Your task to perform on an android device: open app "Adobe Express: Graphic Design" (install if not already installed), go to login, and select forgot password Image 0: 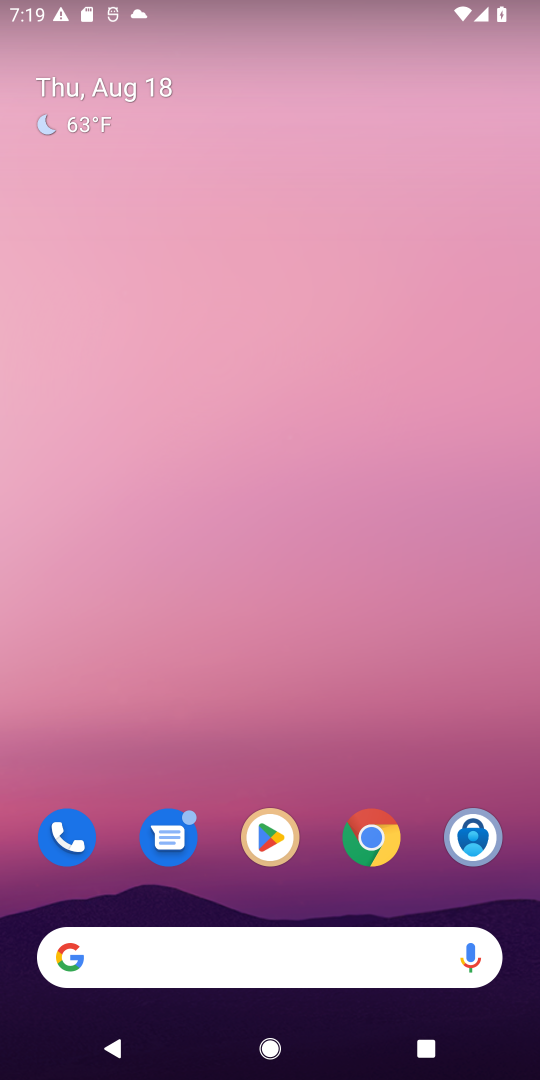
Step 0: drag from (275, 881) to (469, 12)
Your task to perform on an android device: open app "Adobe Express: Graphic Design" (install if not already installed), go to login, and select forgot password Image 1: 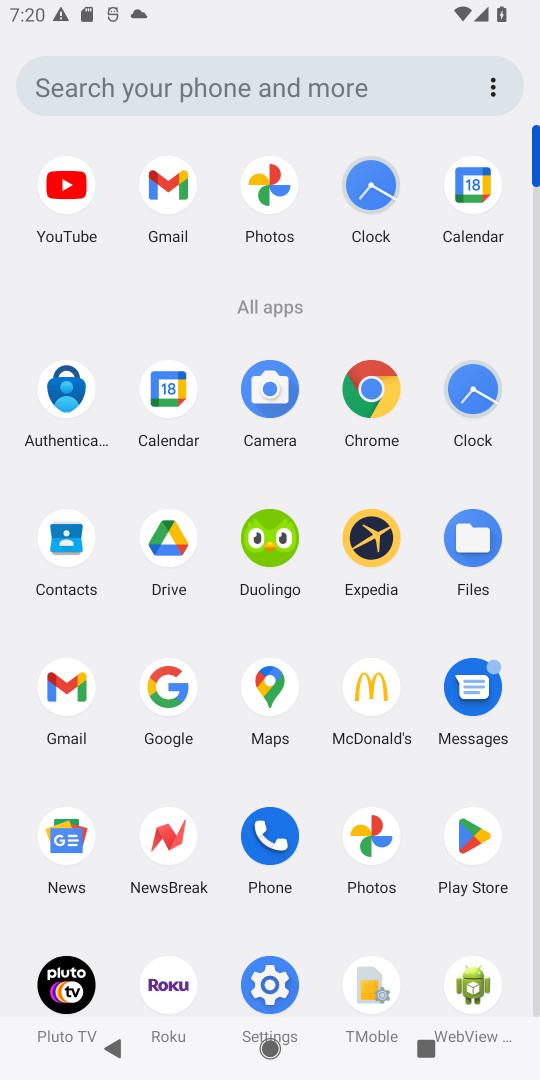
Step 1: click (459, 841)
Your task to perform on an android device: open app "Adobe Express: Graphic Design" (install if not already installed), go to login, and select forgot password Image 2: 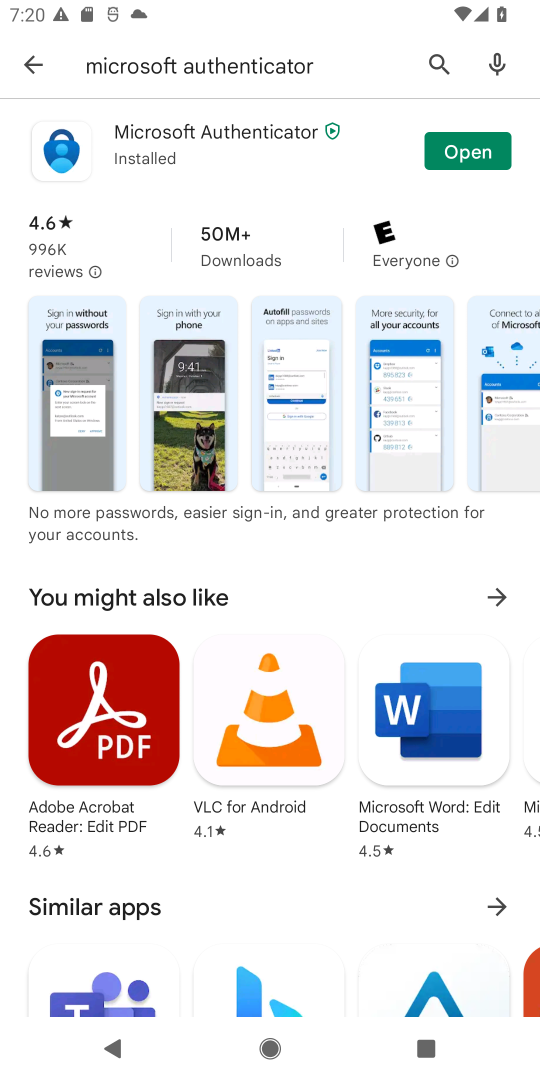
Step 2: click (253, 67)
Your task to perform on an android device: open app "Adobe Express: Graphic Design" (install if not already installed), go to login, and select forgot password Image 3: 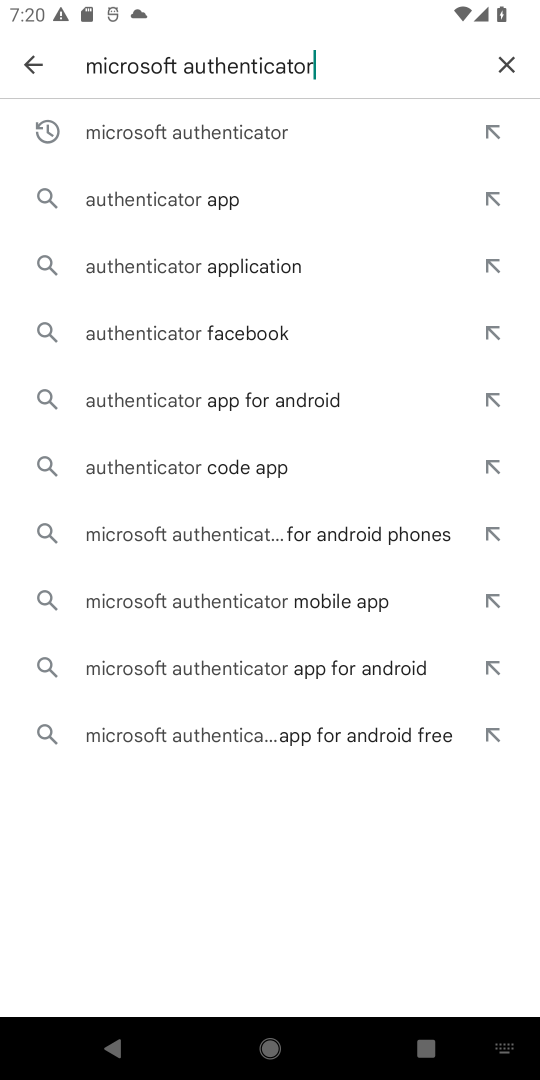
Step 3: click (505, 63)
Your task to perform on an android device: open app "Adobe Express: Graphic Design" (install if not already installed), go to login, and select forgot password Image 4: 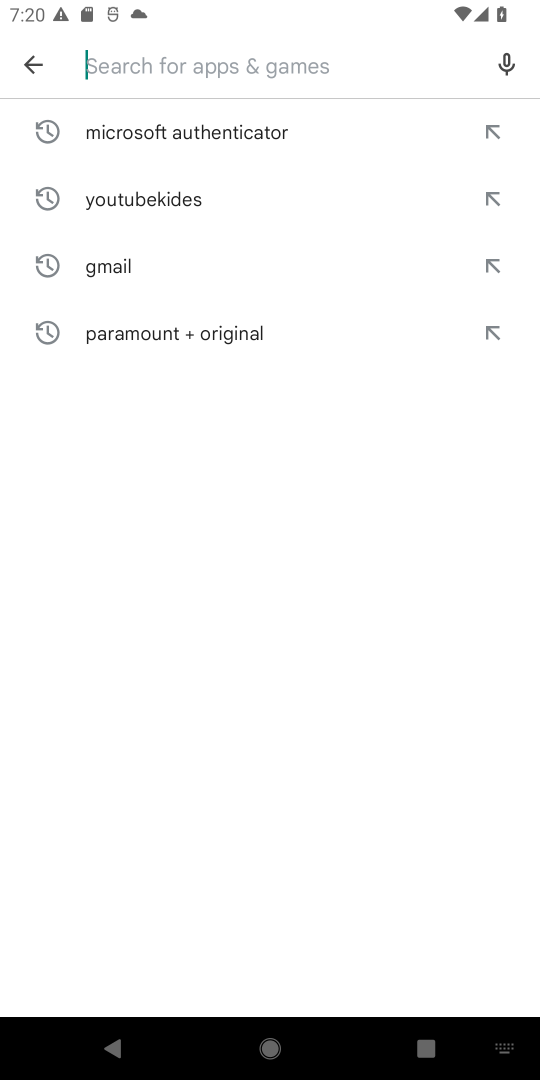
Step 4: type "Adobe Expresss"
Your task to perform on an android device: open app "Adobe Express: Graphic Design" (install if not already installed), go to login, and select forgot password Image 5: 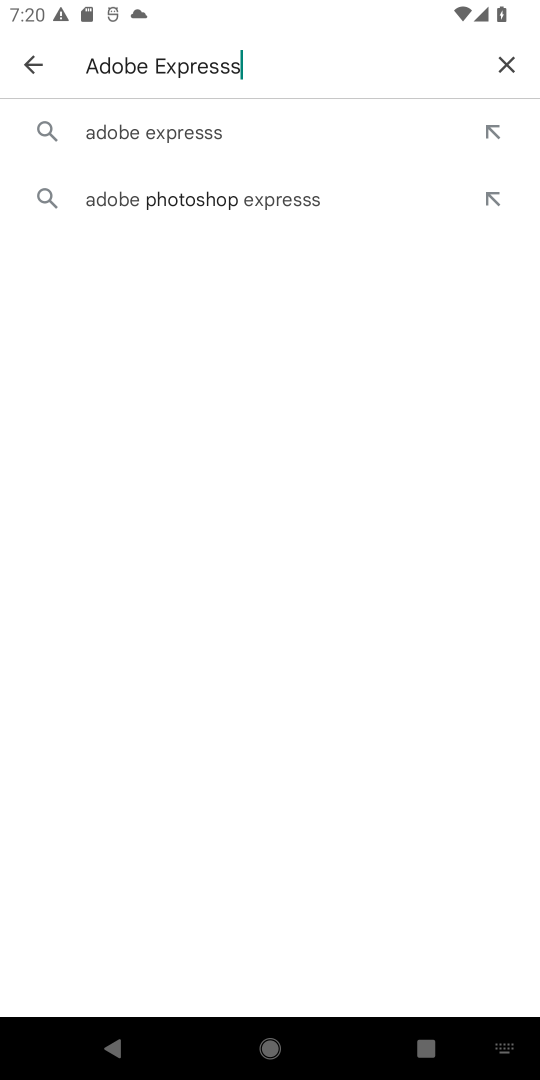
Step 5: click (198, 128)
Your task to perform on an android device: open app "Adobe Express: Graphic Design" (install if not already installed), go to login, and select forgot password Image 6: 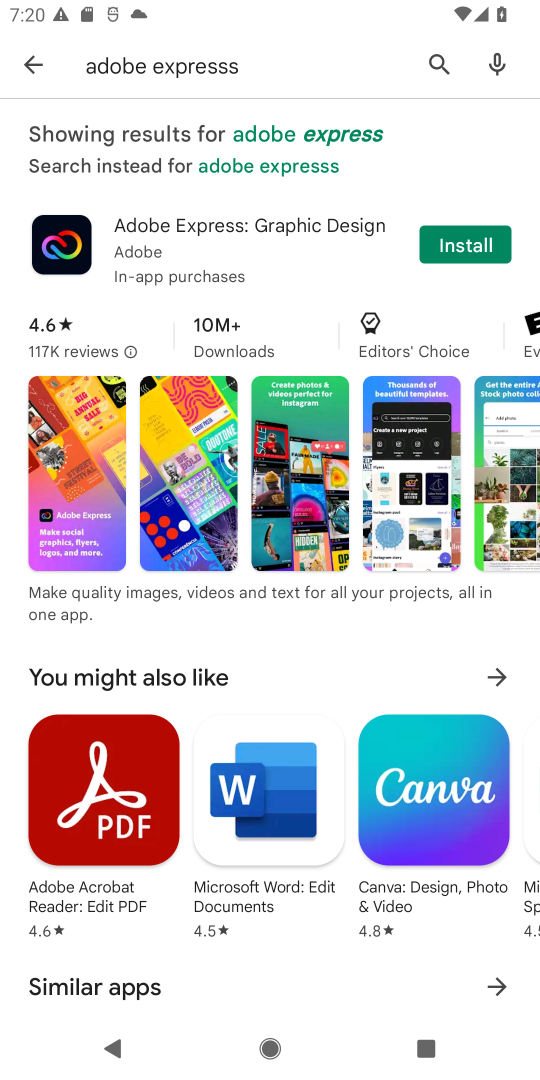
Step 6: click (472, 247)
Your task to perform on an android device: open app "Adobe Express: Graphic Design" (install if not already installed), go to login, and select forgot password Image 7: 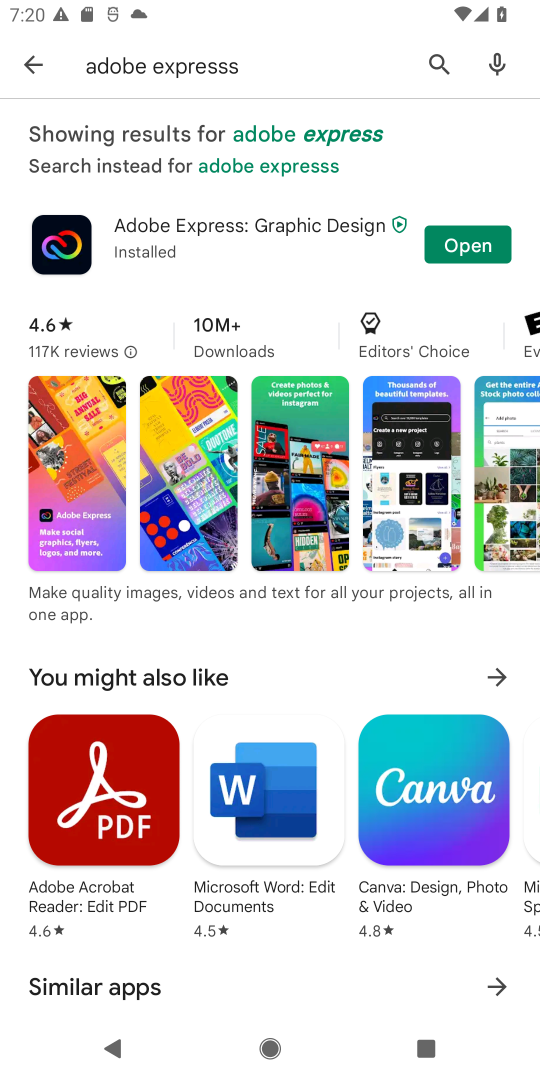
Step 7: click (474, 240)
Your task to perform on an android device: open app "Adobe Express: Graphic Design" (install if not already installed), go to login, and select forgot password Image 8: 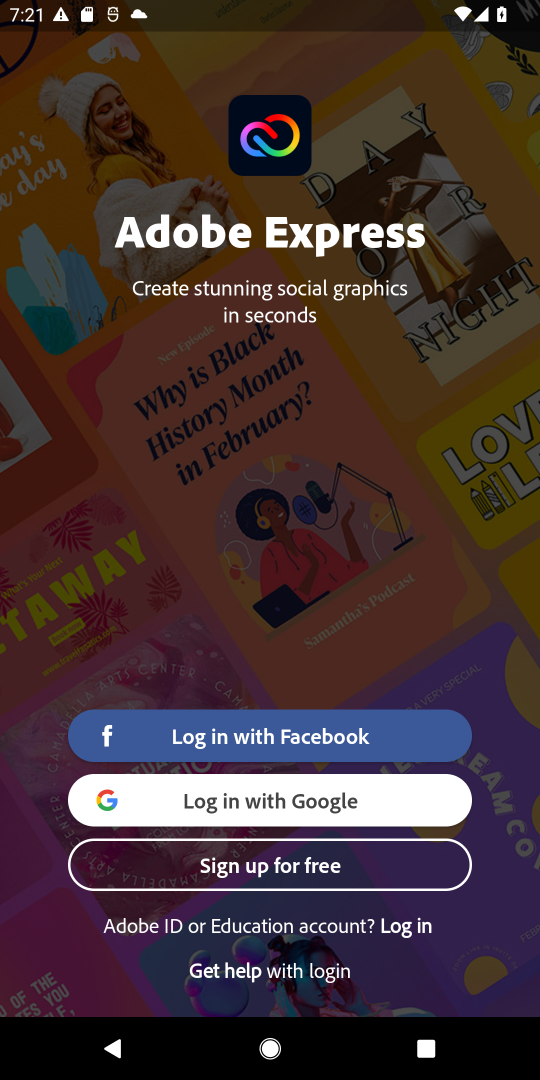
Step 8: click (405, 930)
Your task to perform on an android device: open app "Adobe Express: Graphic Design" (install if not already installed), go to login, and select forgot password Image 9: 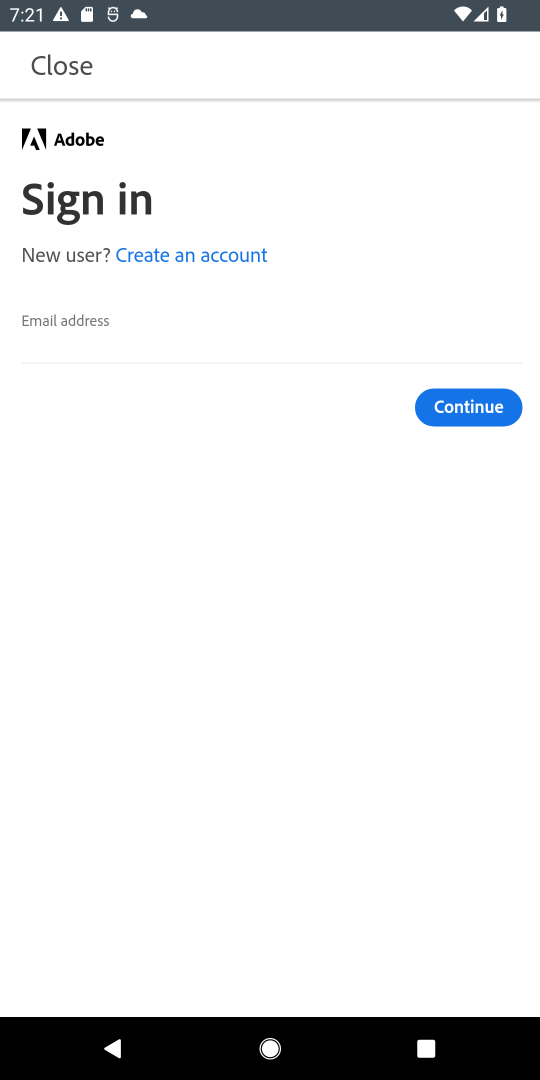
Step 9: task complete